Your task to perform on an android device: What's the weather today? Image 0: 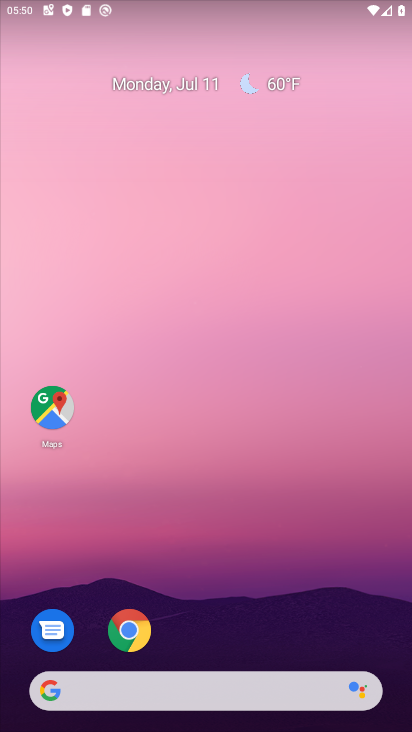
Step 0: drag from (209, 642) to (242, 162)
Your task to perform on an android device: What's the weather today? Image 1: 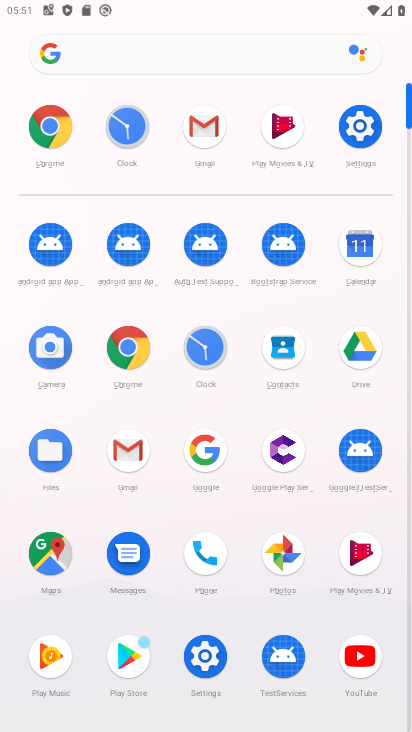
Step 1: click (204, 465)
Your task to perform on an android device: What's the weather today? Image 2: 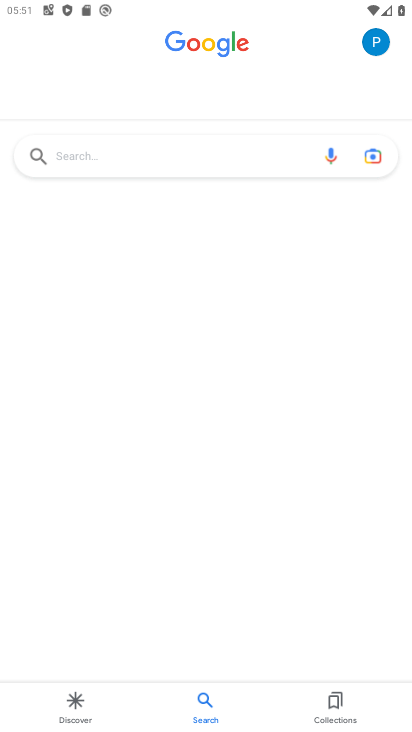
Step 2: click (182, 163)
Your task to perform on an android device: What's the weather today? Image 3: 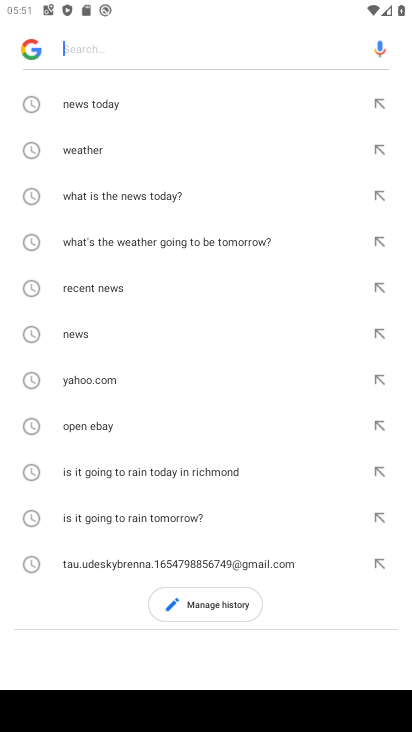
Step 3: click (90, 150)
Your task to perform on an android device: What's the weather today? Image 4: 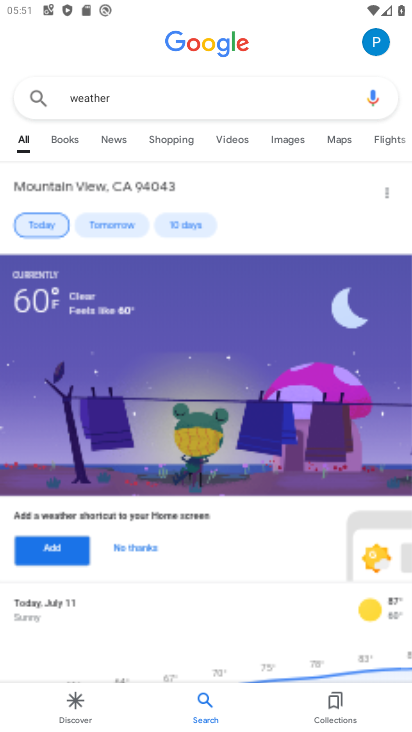
Step 4: task complete